Your task to perform on an android device: What's the weather today? Image 0: 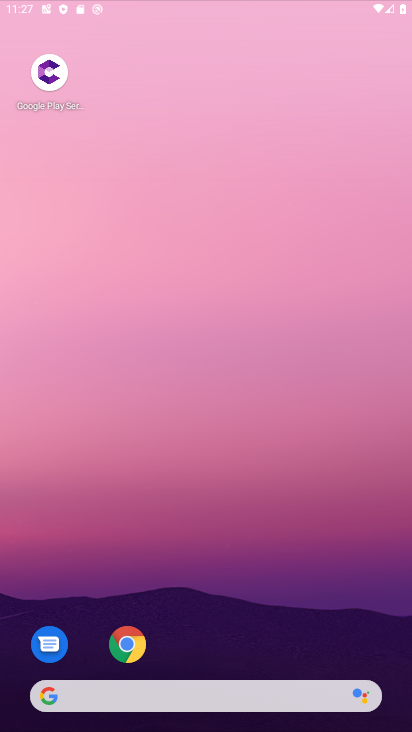
Step 0: press home button
Your task to perform on an android device: What's the weather today? Image 1: 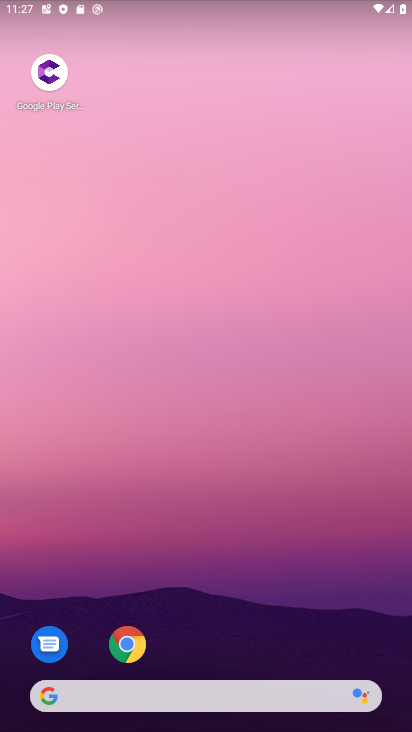
Step 1: drag from (147, 703) to (336, 728)
Your task to perform on an android device: What's the weather today? Image 2: 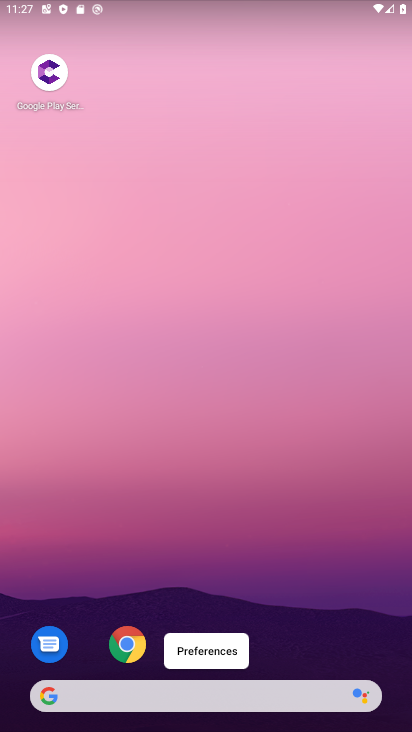
Step 2: click (125, 651)
Your task to perform on an android device: What's the weather today? Image 3: 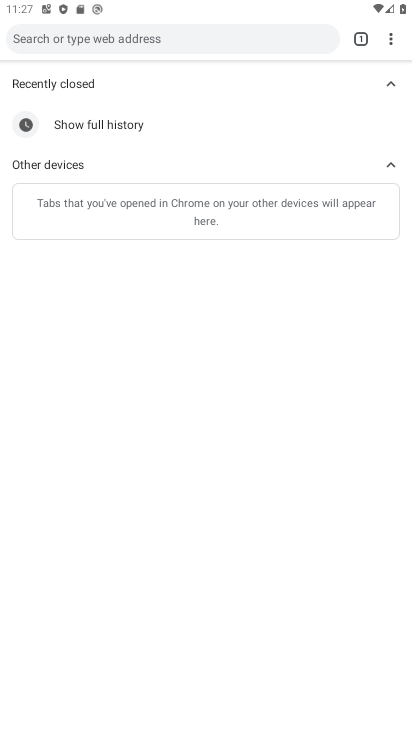
Step 3: click (274, 38)
Your task to perform on an android device: What's the weather today? Image 4: 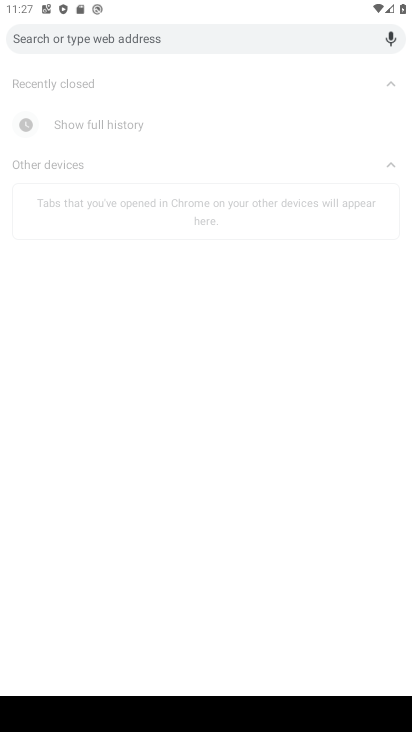
Step 4: type " Italian restaurants"
Your task to perform on an android device: What's the weather today? Image 5: 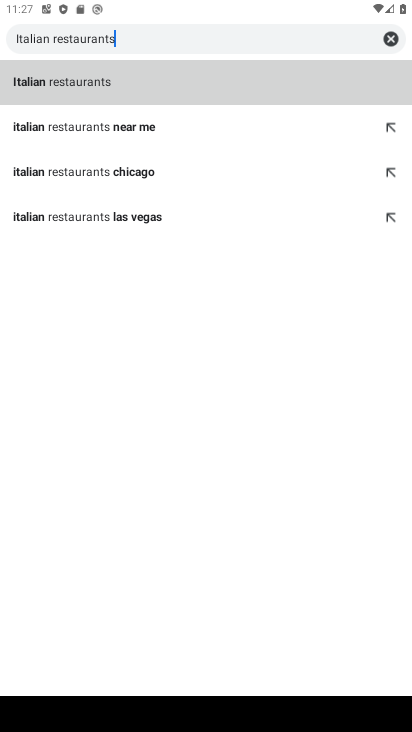
Step 5: click (110, 86)
Your task to perform on an android device: What's the weather today? Image 6: 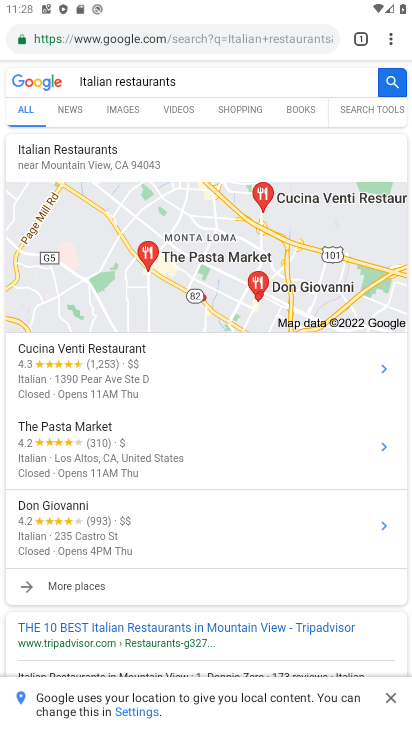
Step 6: click (234, 34)
Your task to perform on an android device: What's the weather today? Image 7: 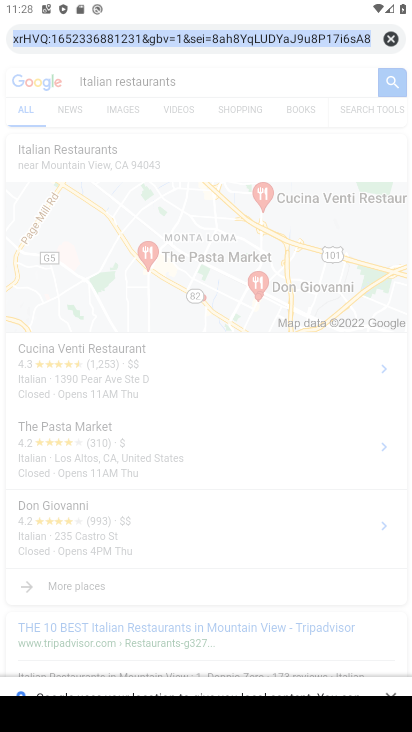
Step 7: press home button
Your task to perform on an android device: What's the weather today? Image 8: 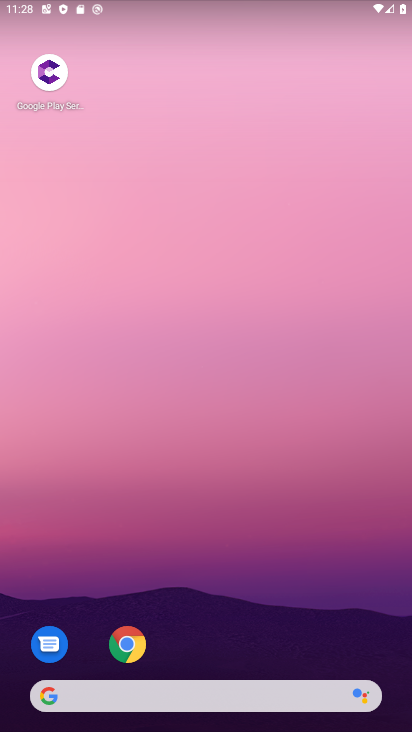
Step 8: click (135, 634)
Your task to perform on an android device: What's the weather today? Image 9: 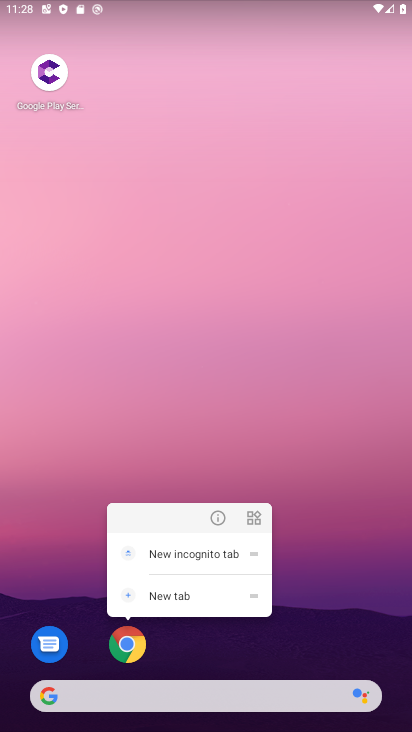
Step 9: click (135, 634)
Your task to perform on an android device: What's the weather today? Image 10: 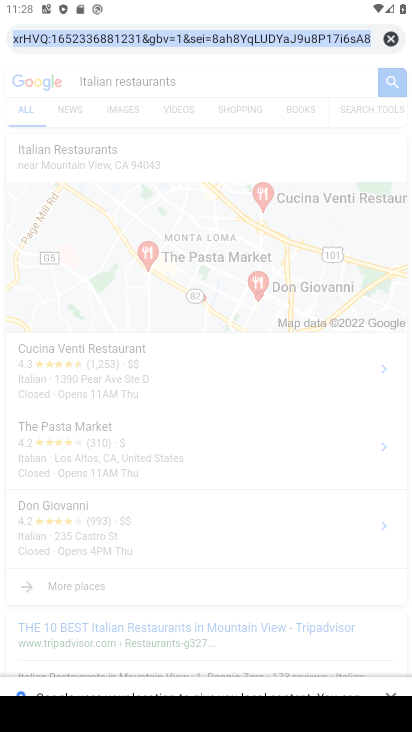
Step 10: click (389, 29)
Your task to perform on an android device: What's the weather today? Image 11: 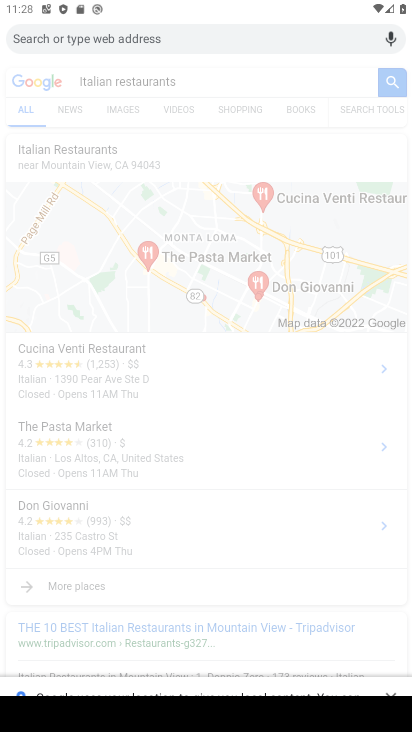
Step 11: type " Italian restaurants"
Your task to perform on an android device: What's the weather today? Image 12: 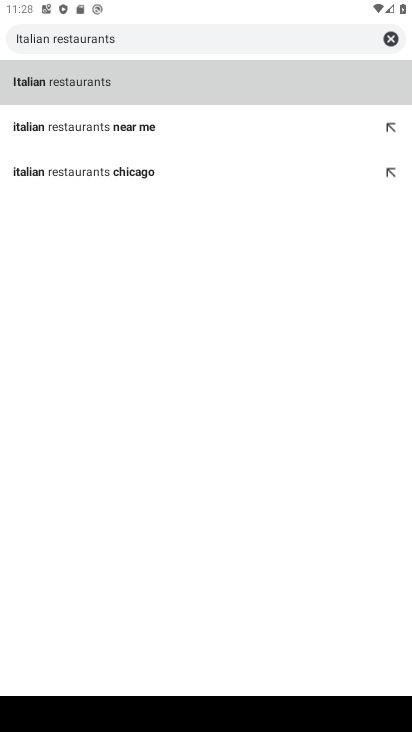
Step 12: click (392, 43)
Your task to perform on an android device: What's the weather today? Image 13: 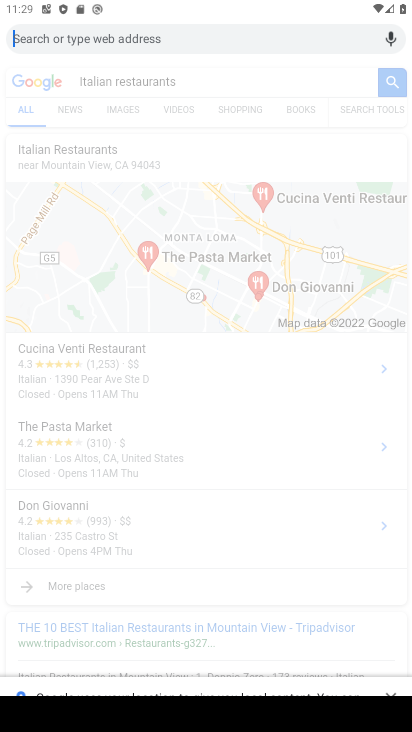
Step 13: click (392, 43)
Your task to perform on an android device: What's the weather today? Image 14: 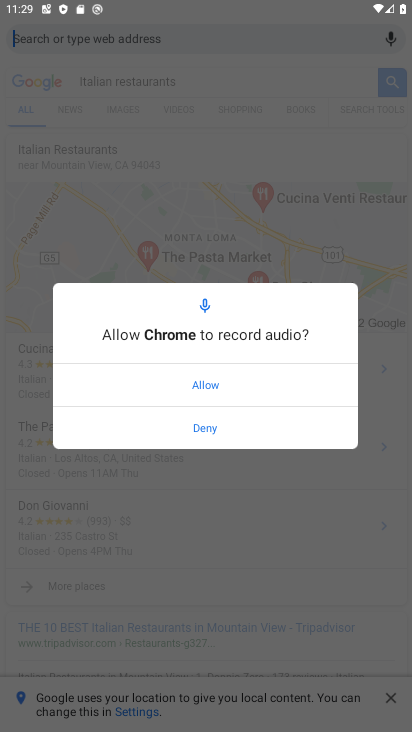
Step 14: click (212, 426)
Your task to perform on an android device: What's the weather today? Image 15: 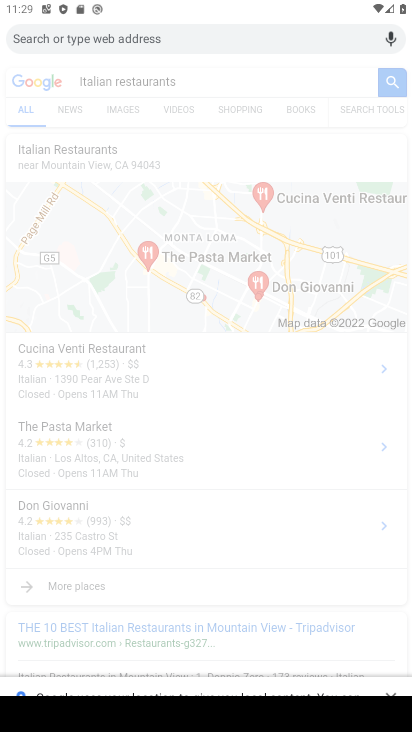
Step 15: type "What's the weather today?"
Your task to perform on an android device: What's the weather today? Image 16: 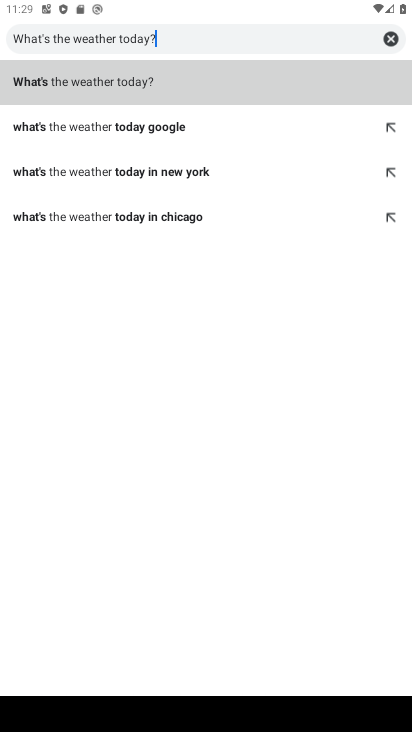
Step 16: click (276, 89)
Your task to perform on an android device: What's the weather today? Image 17: 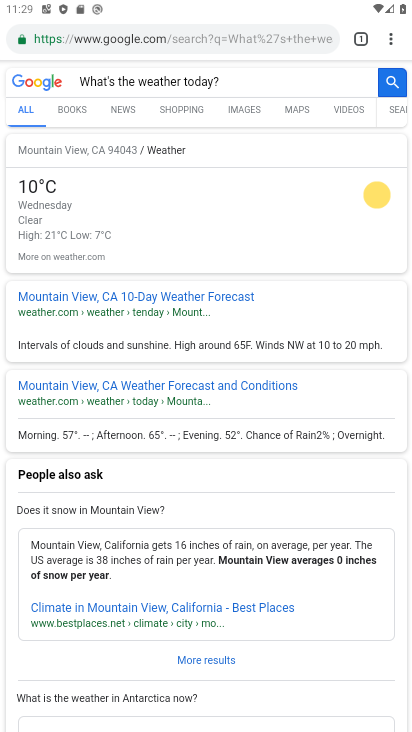
Step 17: task complete